Your task to perform on an android device: turn on wifi Image 0: 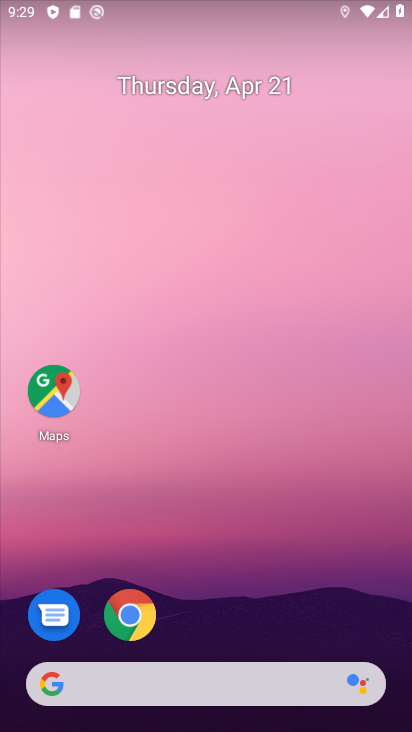
Step 0: drag from (197, 686) to (197, 192)
Your task to perform on an android device: turn on wifi Image 1: 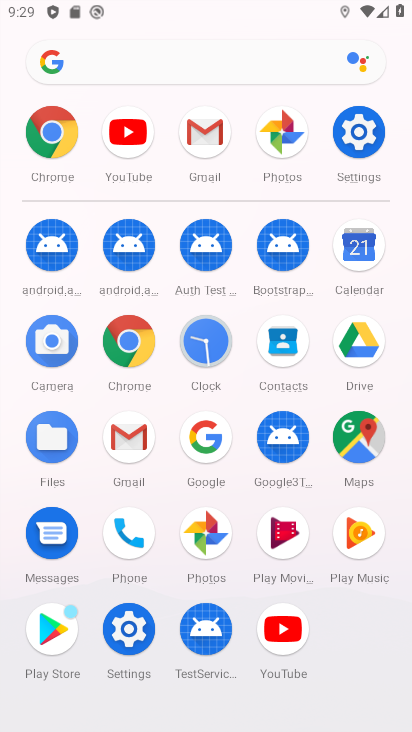
Step 1: click (352, 127)
Your task to perform on an android device: turn on wifi Image 2: 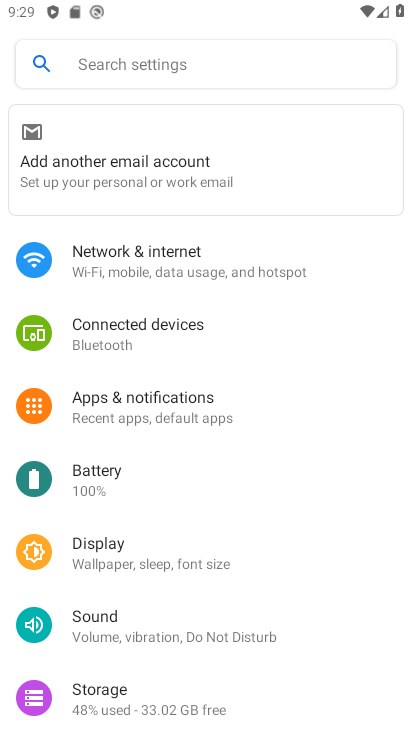
Step 2: click (130, 268)
Your task to perform on an android device: turn on wifi Image 3: 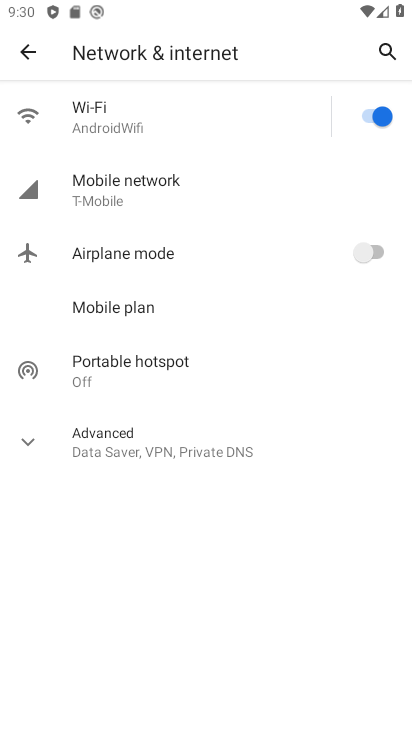
Step 3: click (104, 115)
Your task to perform on an android device: turn on wifi Image 4: 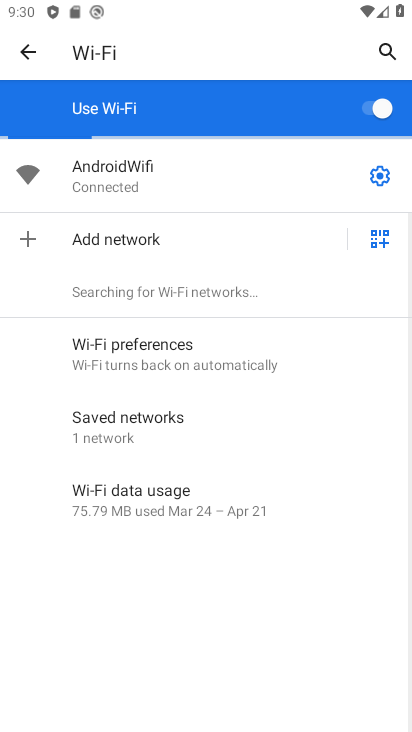
Step 4: task complete